Your task to perform on an android device: Open Google Image 0: 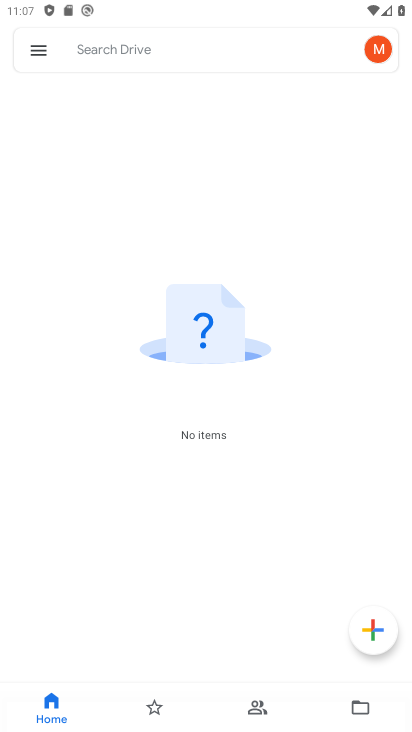
Step 0: press home button
Your task to perform on an android device: Open Google Image 1: 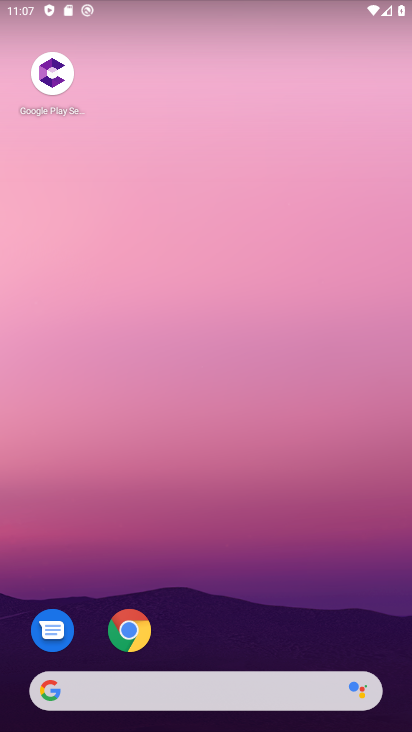
Step 1: click (278, 692)
Your task to perform on an android device: Open Google Image 2: 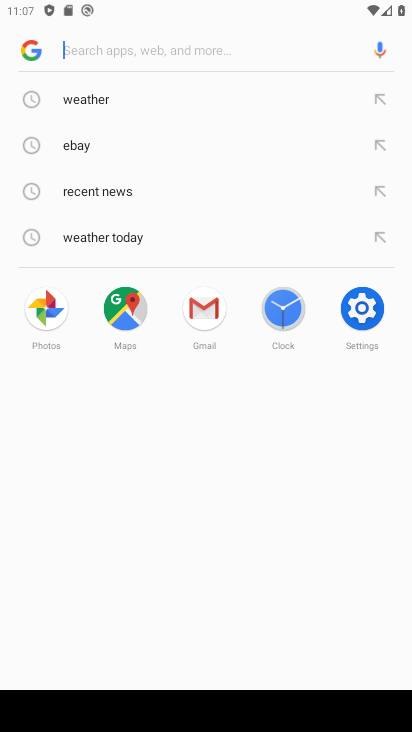
Step 2: task complete